Your task to perform on an android device: Go to location settings Image 0: 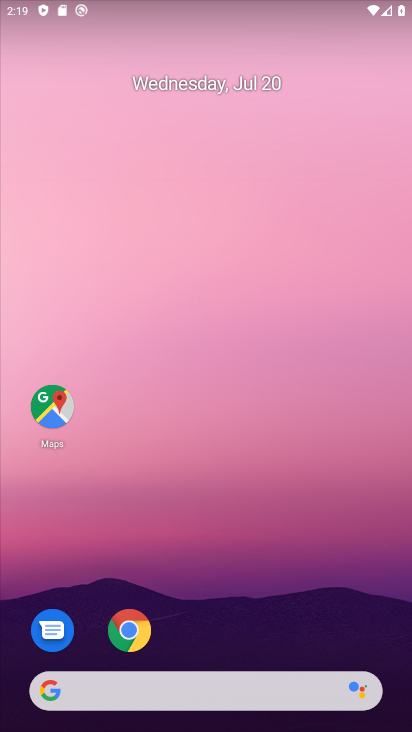
Step 0: drag from (222, 645) to (175, 77)
Your task to perform on an android device: Go to location settings Image 1: 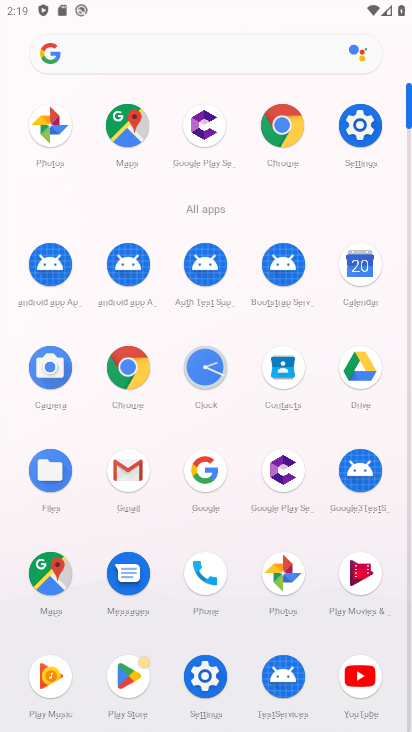
Step 1: click (354, 127)
Your task to perform on an android device: Go to location settings Image 2: 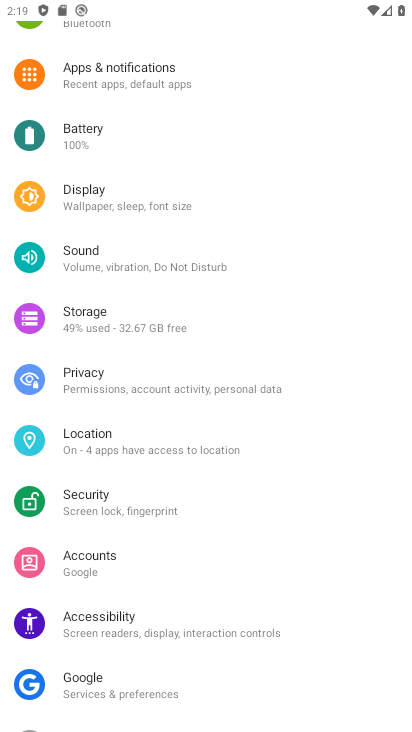
Step 2: click (123, 433)
Your task to perform on an android device: Go to location settings Image 3: 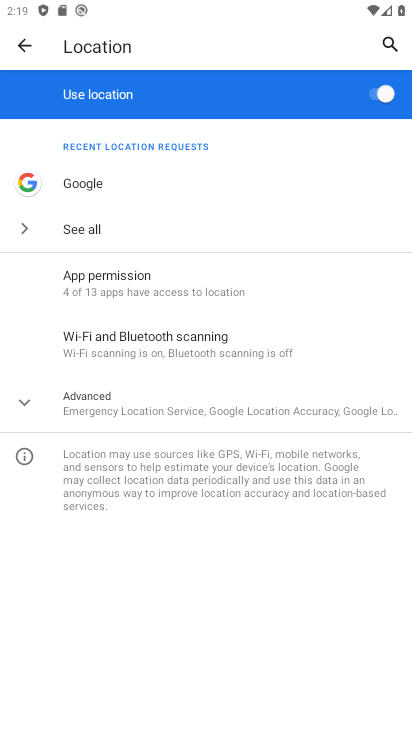
Step 3: task complete